Your task to perform on an android device: What is the recent news? Image 0: 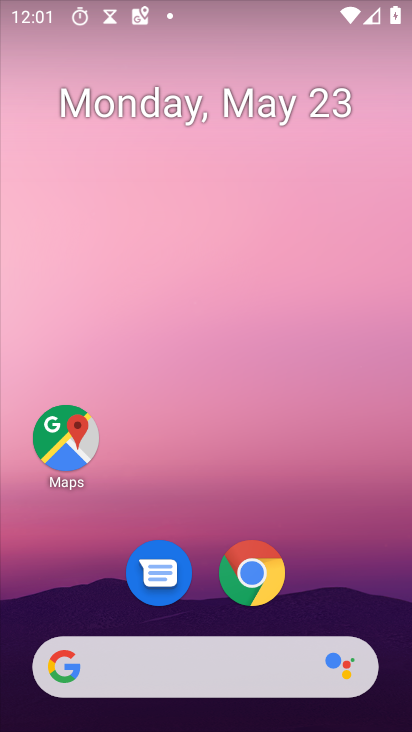
Step 0: click (68, 669)
Your task to perform on an android device: What is the recent news? Image 1: 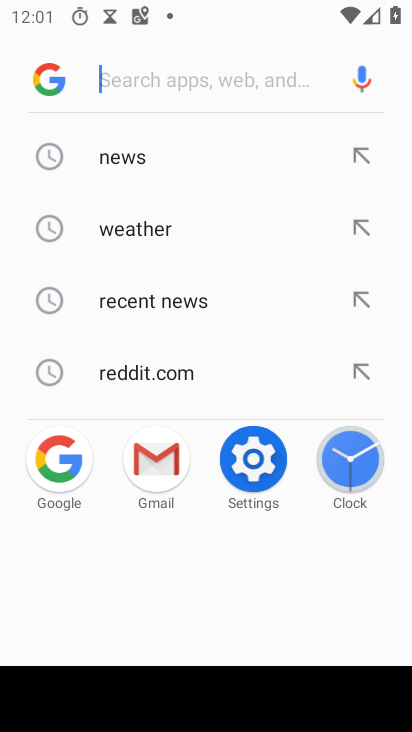
Step 1: click (181, 307)
Your task to perform on an android device: What is the recent news? Image 2: 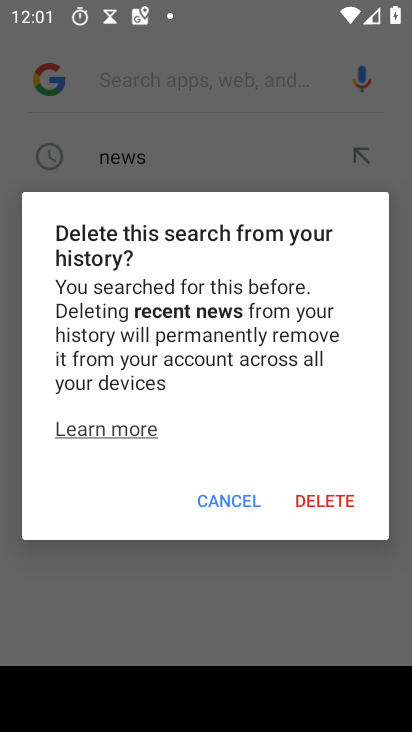
Step 2: click (239, 505)
Your task to perform on an android device: What is the recent news? Image 3: 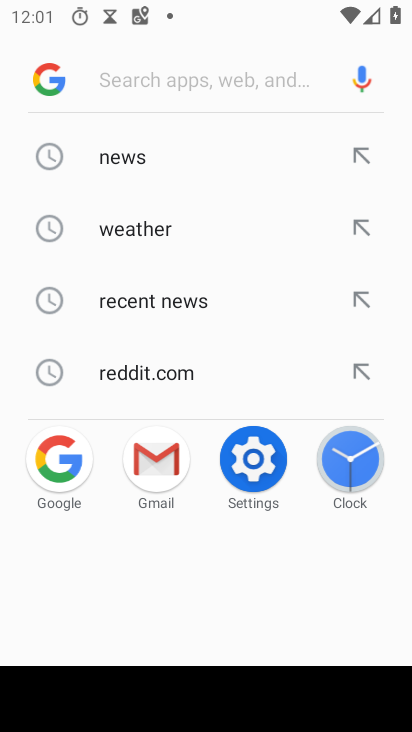
Step 3: click (203, 303)
Your task to perform on an android device: What is the recent news? Image 4: 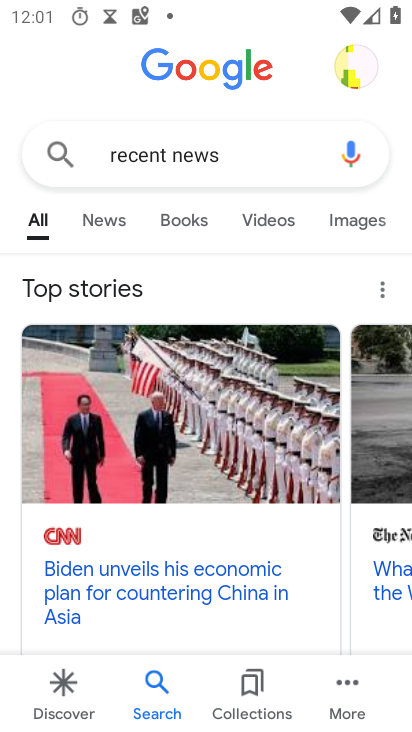
Step 4: click (113, 219)
Your task to perform on an android device: What is the recent news? Image 5: 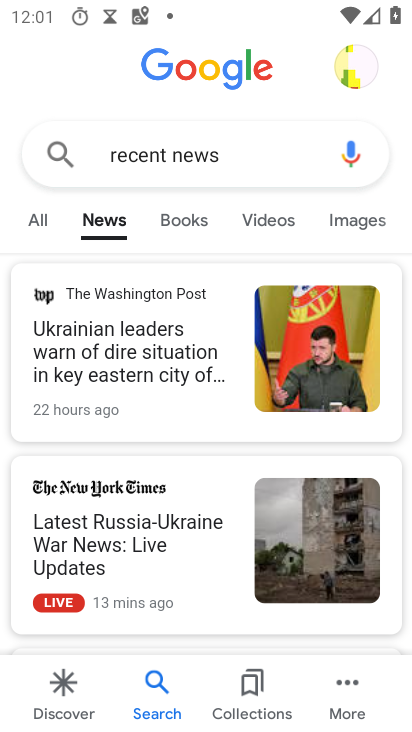
Step 5: task complete